Your task to perform on an android device: open app "TextNow: Call + Text Unlimited" (install if not already installed) Image 0: 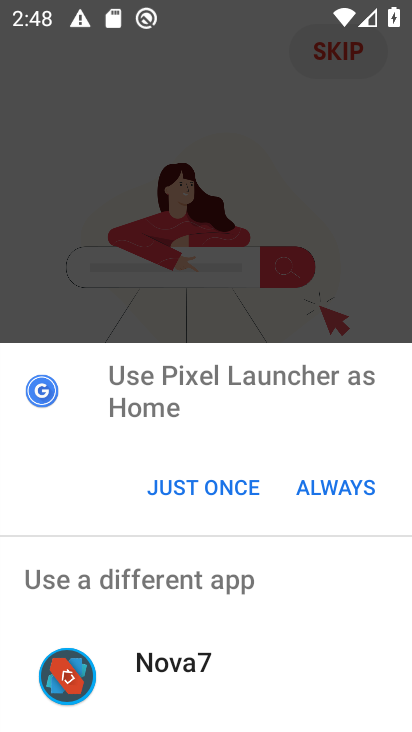
Step 0: press home button
Your task to perform on an android device: open app "TextNow: Call + Text Unlimited" (install if not already installed) Image 1: 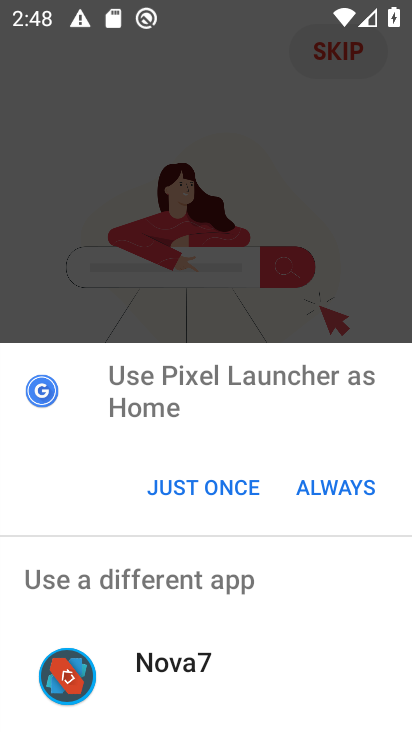
Step 1: click (181, 477)
Your task to perform on an android device: open app "TextNow: Call + Text Unlimited" (install if not already installed) Image 2: 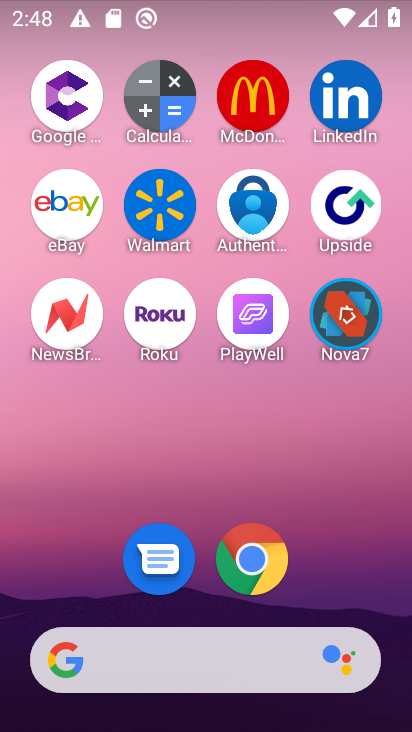
Step 2: drag from (180, 619) to (180, 104)
Your task to perform on an android device: open app "TextNow: Call + Text Unlimited" (install if not already installed) Image 3: 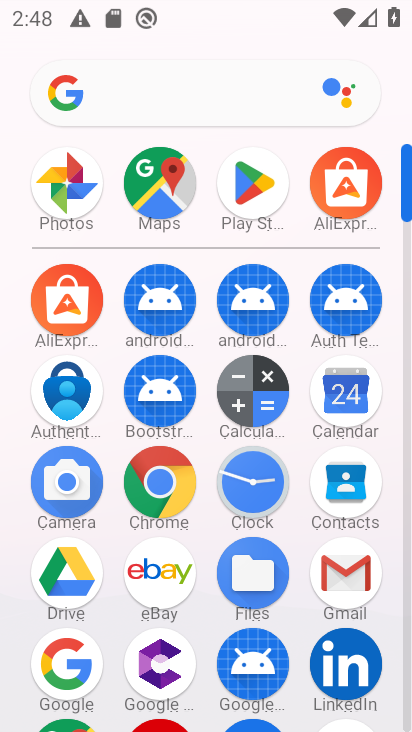
Step 3: click (263, 187)
Your task to perform on an android device: open app "TextNow: Call + Text Unlimited" (install if not already installed) Image 4: 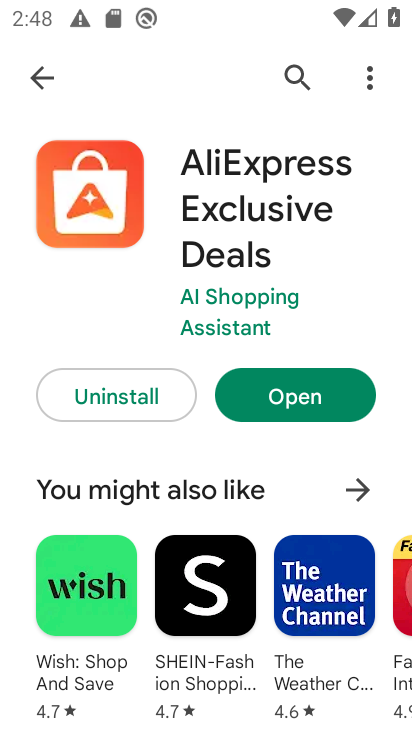
Step 4: click (295, 73)
Your task to perform on an android device: open app "TextNow: Call + Text Unlimited" (install if not already installed) Image 5: 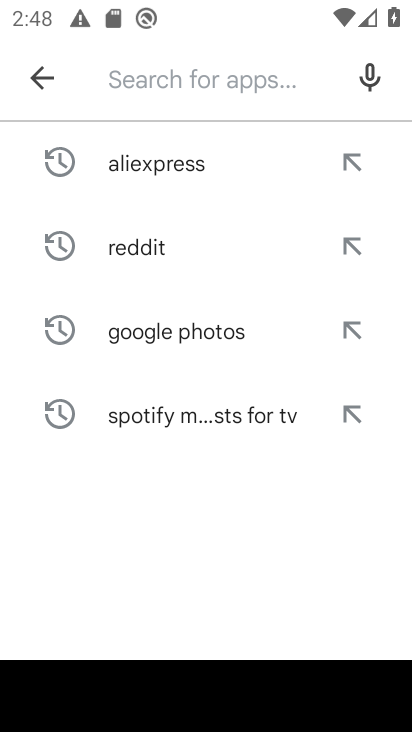
Step 5: type "TextNow: Call + Text Unlimited"
Your task to perform on an android device: open app "TextNow: Call + Text Unlimited" (install if not already installed) Image 6: 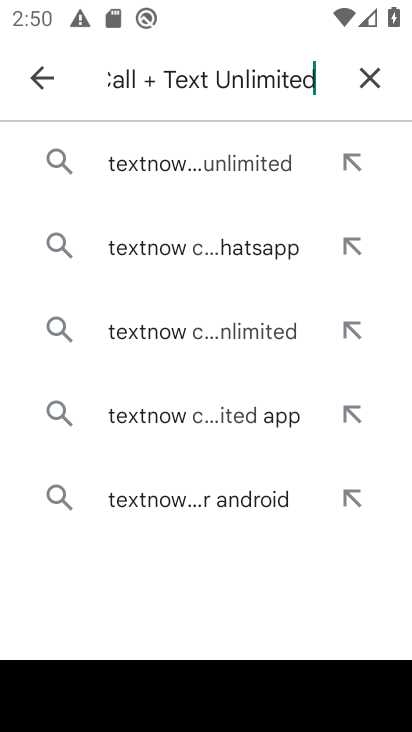
Step 6: click (214, 164)
Your task to perform on an android device: open app "TextNow: Call + Text Unlimited" (install if not already installed) Image 7: 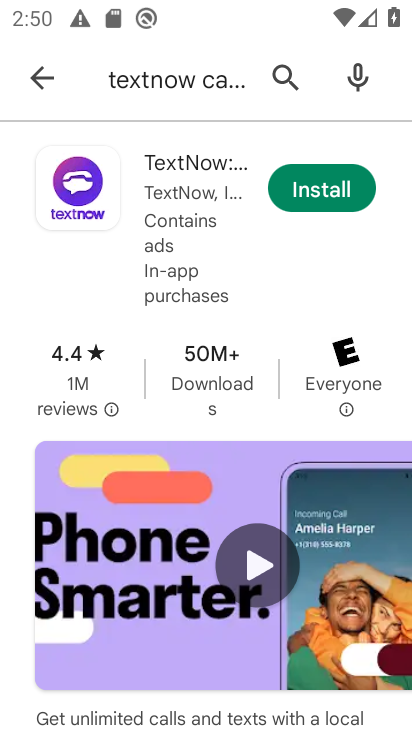
Step 7: click (321, 190)
Your task to perform on an android device: open app "TextNow: Call + Text Unlimited" (install if not already installed) Image 8: 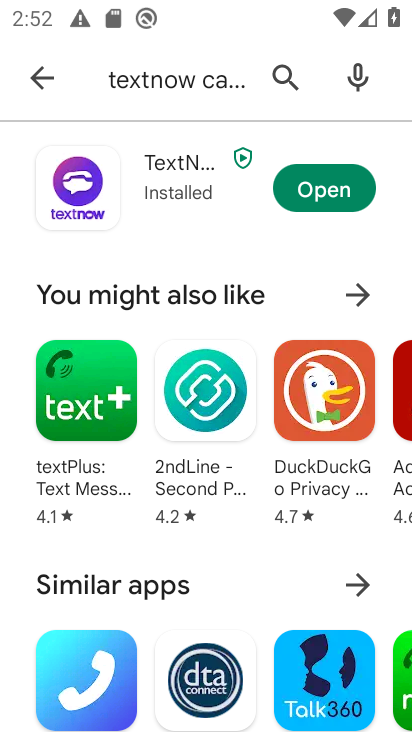
Step 8: click (315, 192)
Your task to perform on an android device: open app "TextNow: Call + Text Unlimited" (install if not already installed) Image 9: 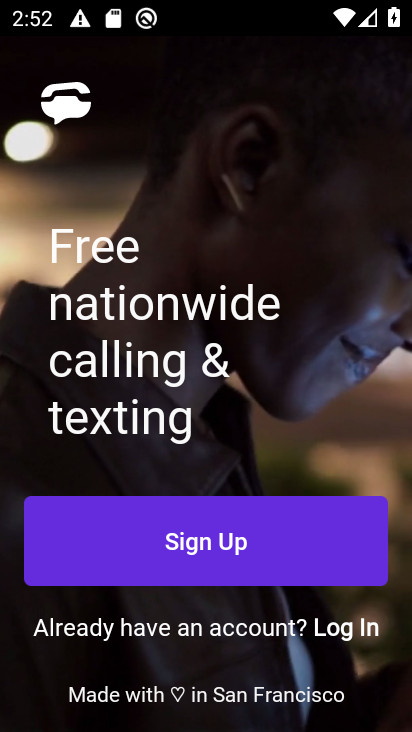
Step 9: task complete